Your task to perform on an android device: find photos in the google photos app Image 0: 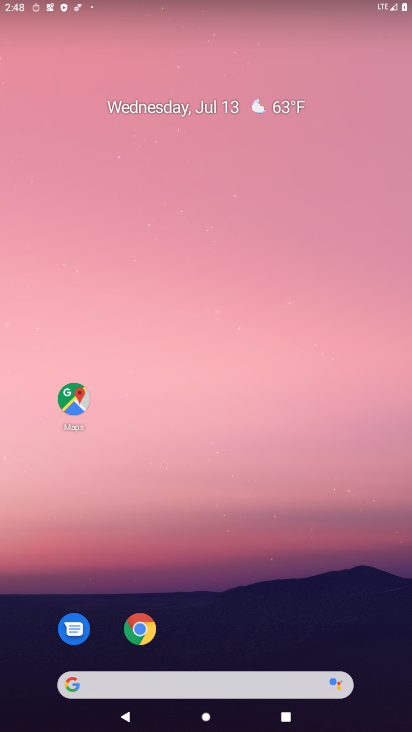
Step 0: drag from (192, 647) to (207, 371)
Your task to perform on an android device: find photos in the google photos app Image 1: 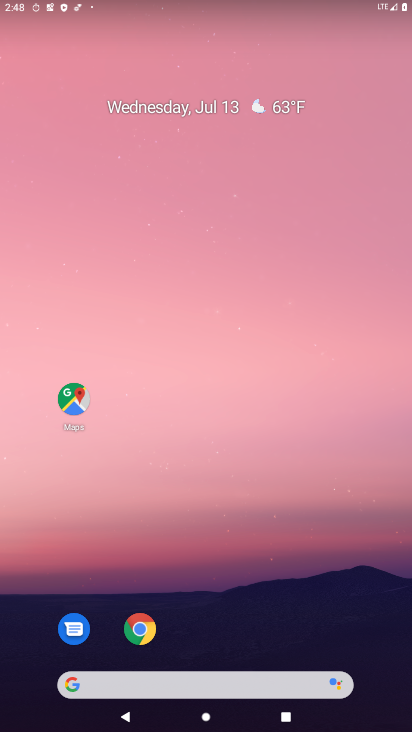
Step 1: drag from (212, 649) to (225, 249)
Your task to perform on an android device: find photos in the google photos app Image 2: 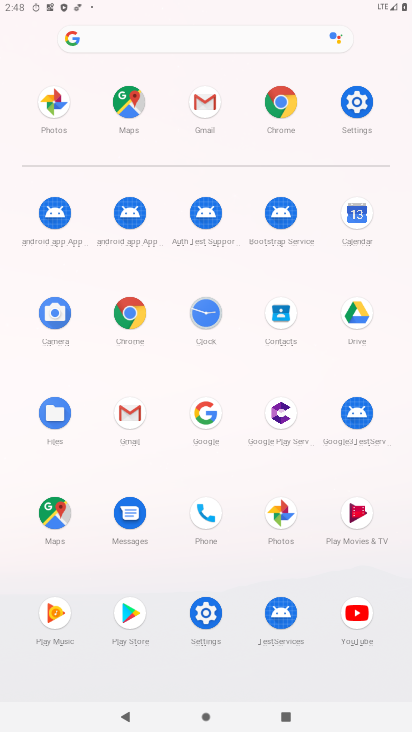
Step 2: click (281, 511)
Your task to perform on an android device: find photos in the google photos app Image 3: 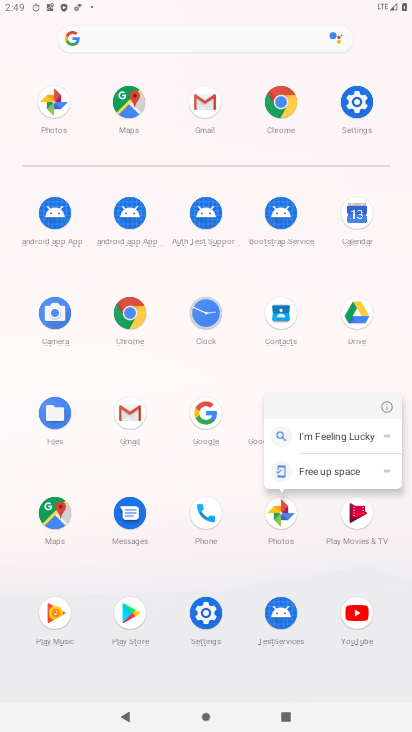
Step 3: click (389, 406)
Your task to perform on an android device: find photos in the google photos app Image 4: 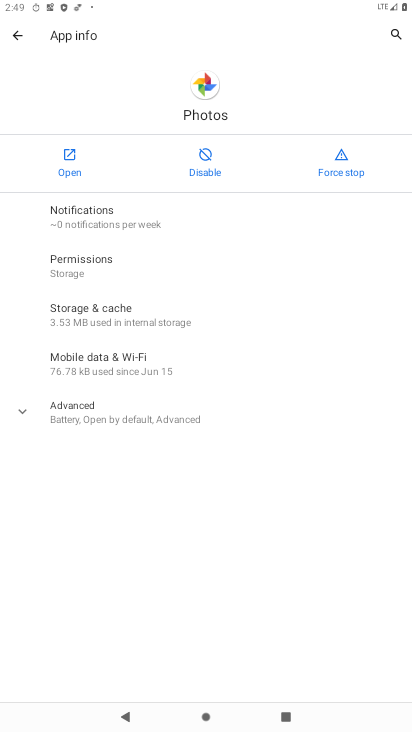
Step 4: click (65, 156)
Your task to perform on an android device: find photos in the google photos app Image 5: 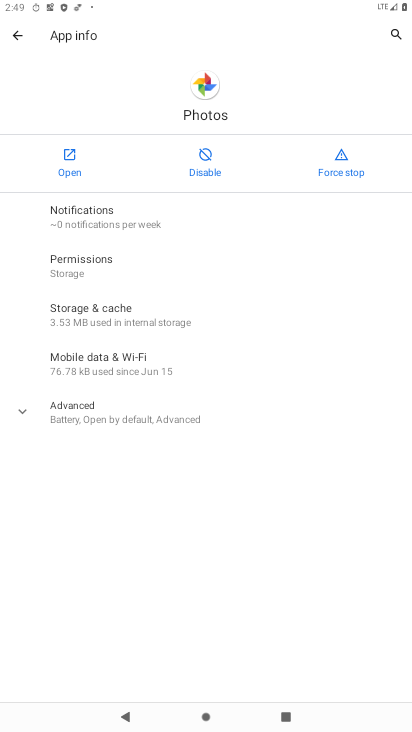
Step 5: click (65, 156)
Your task to perform on an android device: find photos in the google photos app Image 6: 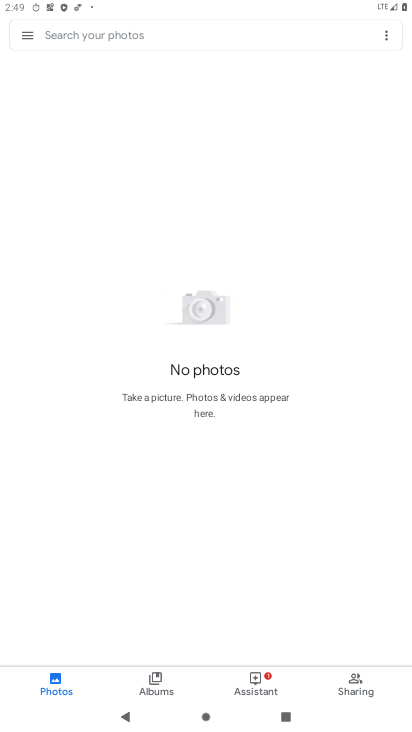
Step 6: drag from (137, 563) to (191, 332)
Your task to perform on an android device: find photos in the google photos app Image 7: 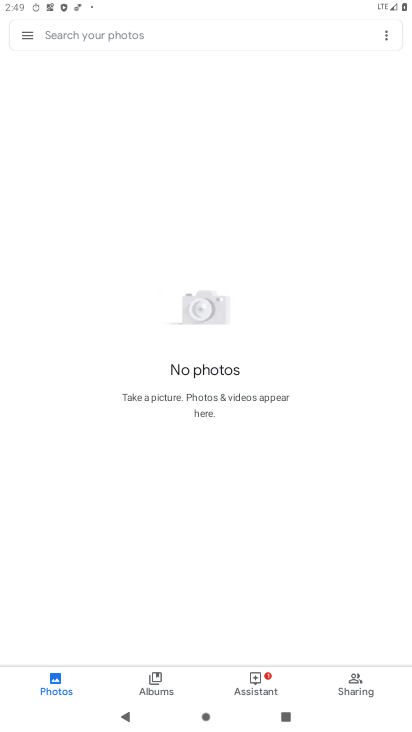
Step 7: click (147, 683)
Your task to perform on an android device: find photos in the google photos app Image 8: 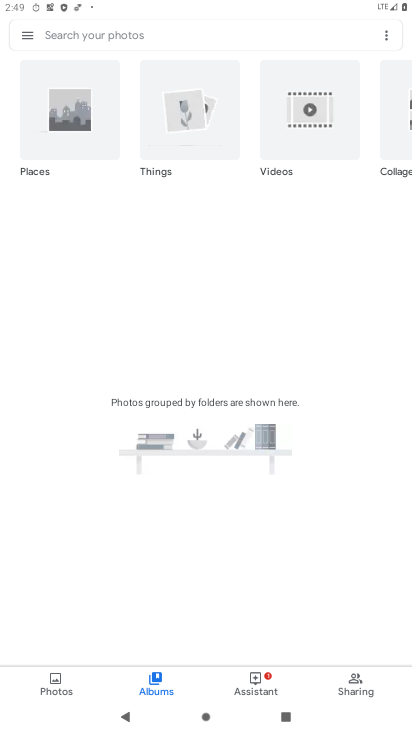
Step 8: click (91, 120)
Your task to perform on an android device: find photos in the google photos app Image 9: 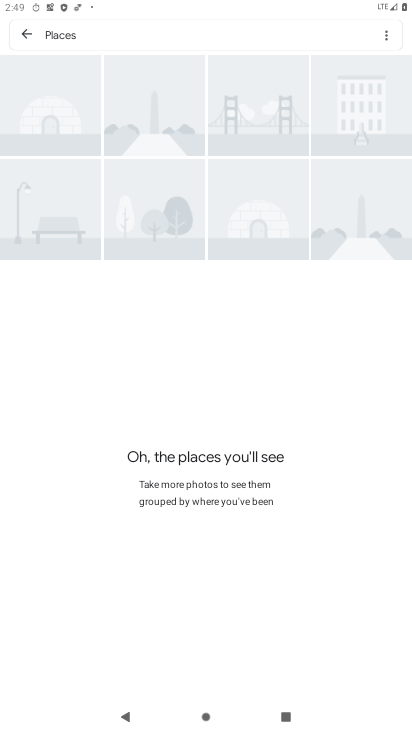
Step 9: click (25, 24)
Your task to perform on an android device: find photos in the google photos app Image 10: 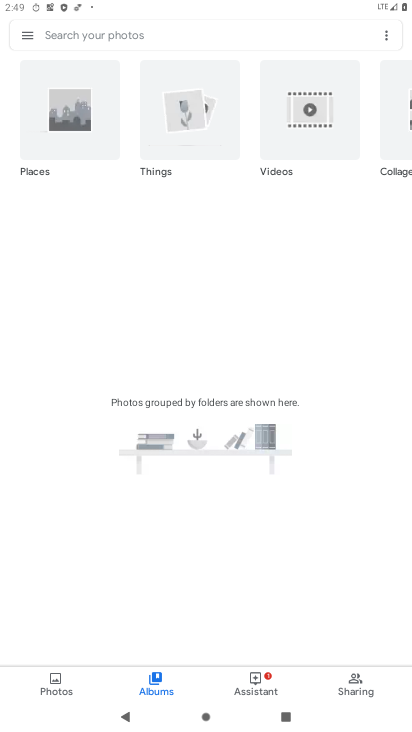
Step 10: click (7, 682)
Your task to perform on an android device: find photos in the google photos app Image 11: 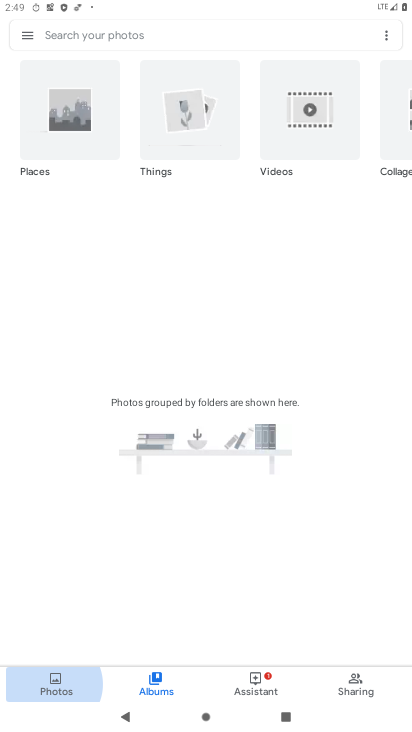
Step 11: click (35, 686)
Your task to perform on an android device: find photos in the google photos app Image 12: 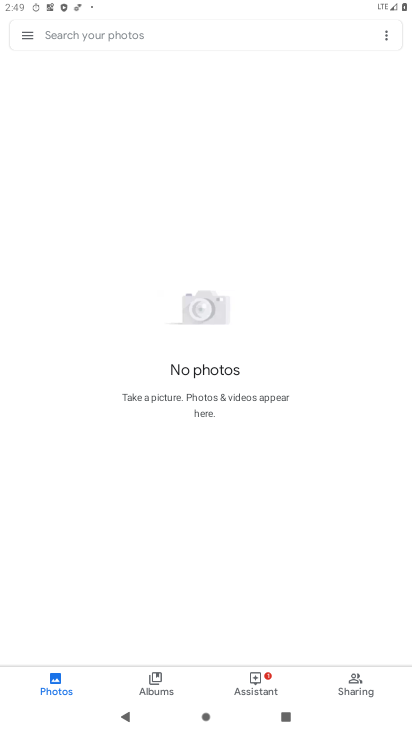
Step 12: click (227, 198)
Your task to perform on an android device: find photos in the google photos app Image 13: 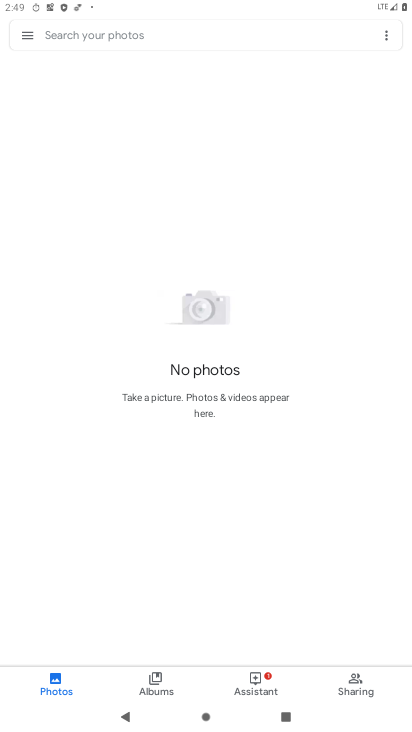
Step 13: task complete